Your task to perform on an android device: Open the calendar and show me this week's events? Image 0: 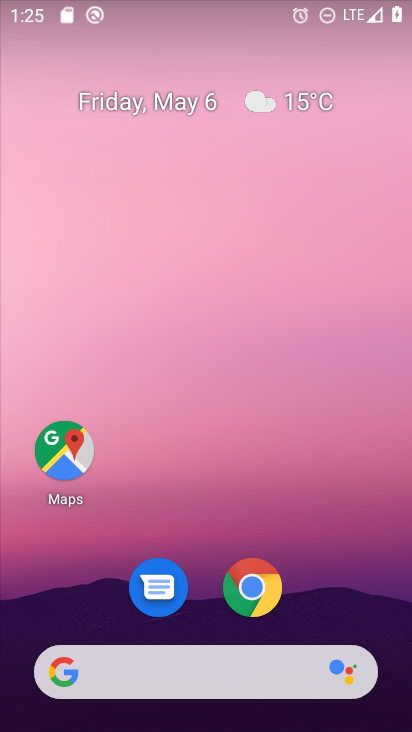
Step 0: drag from (352, 570) to (272, 46)
Your task to perform on an android device: Open the calendar and show me this week's events? Image 1: 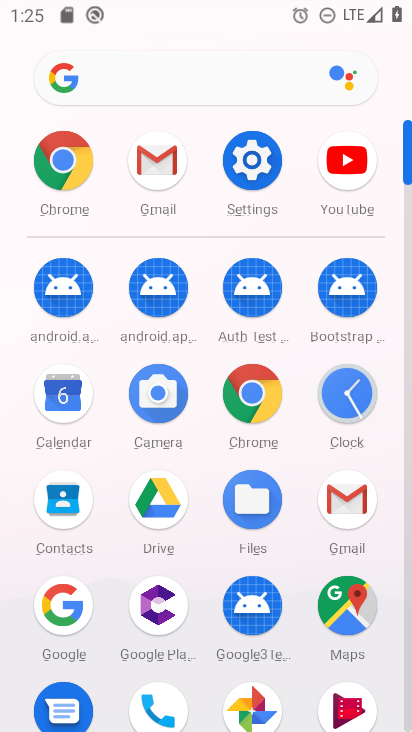
Step 1: click (70, 390)
Your task to perform on an android device: Open the calendar and show me this week's events? Image 2: 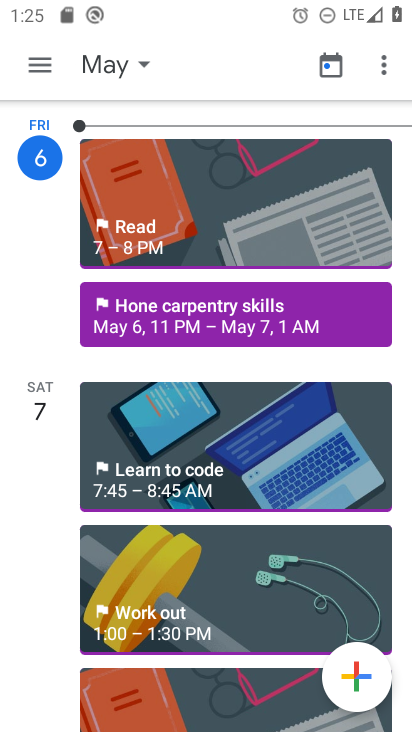
Step 2: click (32, 64)
Your task to perform on an android device: Open the calendar and show me this week's events? Image 3: 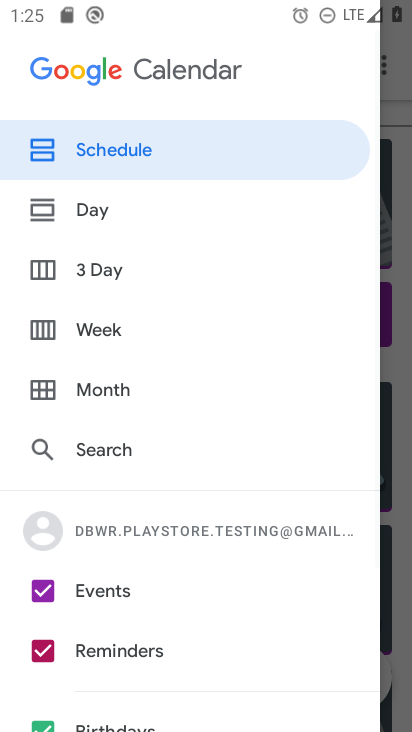
Step 3: click (123, 334)
Your task to perform on an android device: Open the calendar and show me this week's events? Image 4: 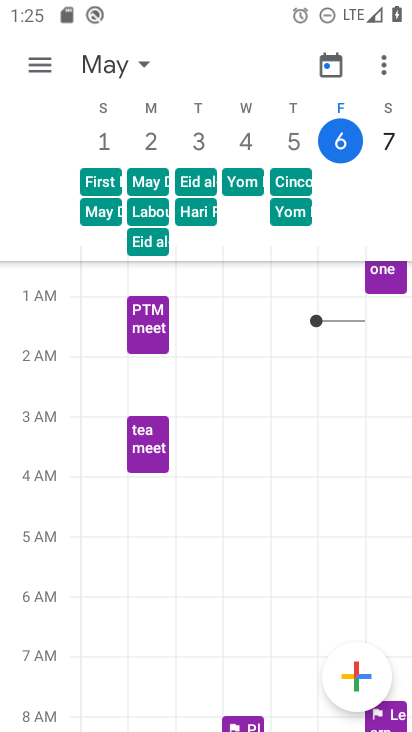
Step 4: task complete